Your task to perform on an android device: manage bookmarks in the chrome app Image 0: 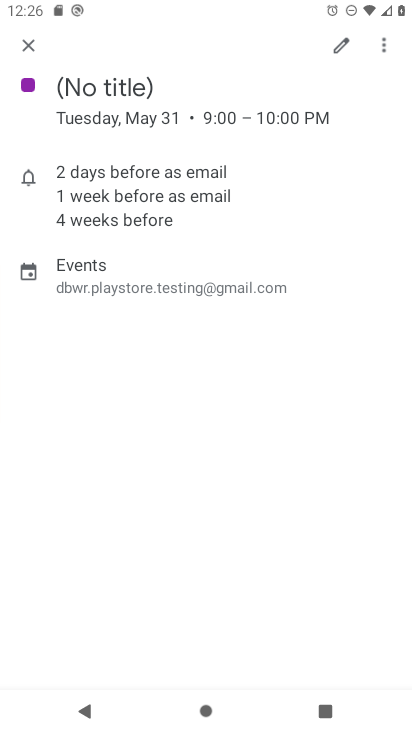
Step 0: press home button
Your task to perform on an android device: manage bookmarks in the chrome app Image 1: 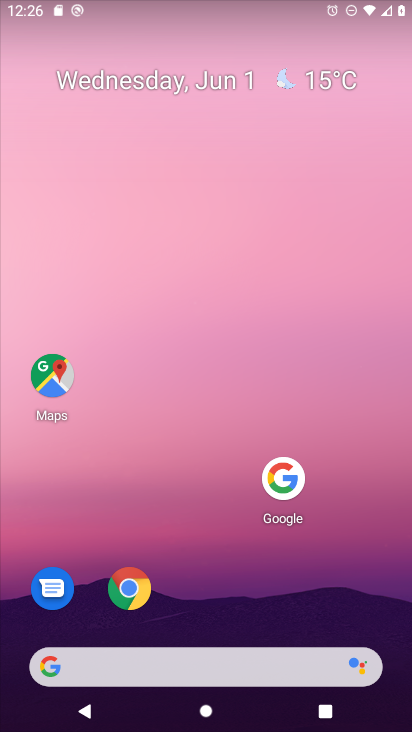
Step 1: click (129, 587)
Your task to perform on an android device: manage bookmarks in the chrome app Image 2: 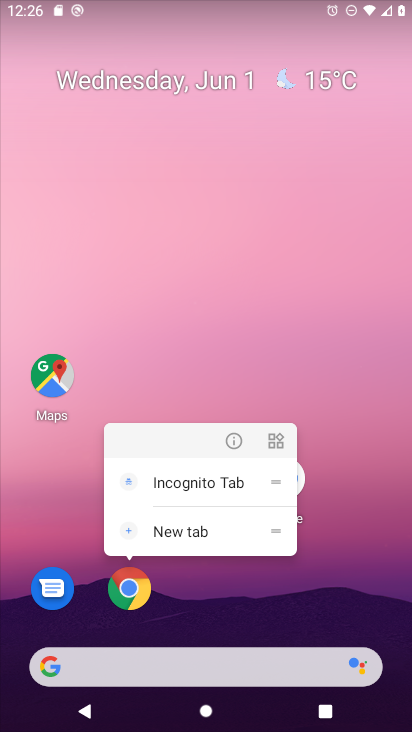
Step 2: click (129, 587)
Your task to perform on an android device: manage bookmarks in the chrome app Image 3: 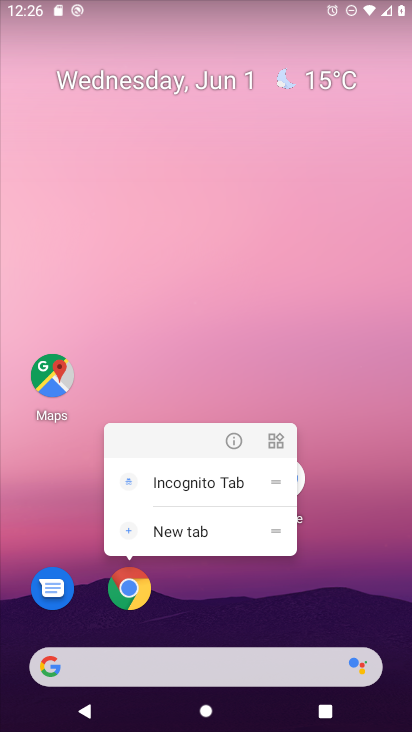
Step 3: click (129, 586)
Your task to perform on an android device: manage bookmarks in the chrome app Image 4: 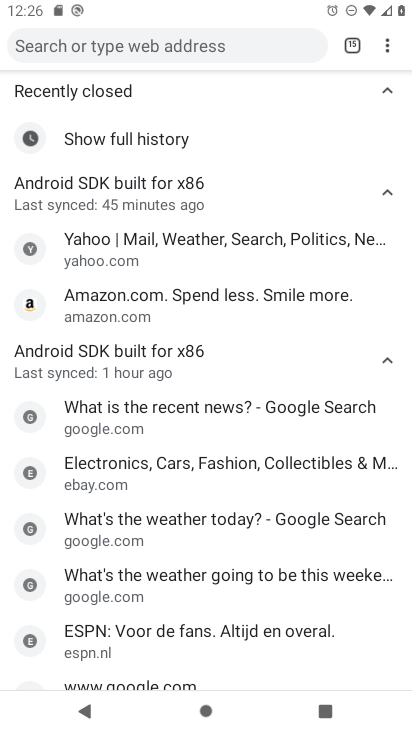
Step 4: drag from (384, 45) to (268, 168)
Your task to perform on an android device: manage bookmarks in the chrome app Image 5: 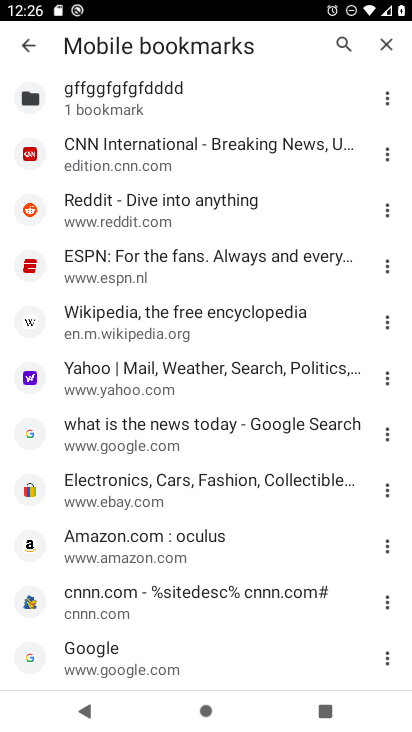
Step 5: click (390, 154)
Your task to perform on an android device: manage bookmarks in the chrome app Image 6: 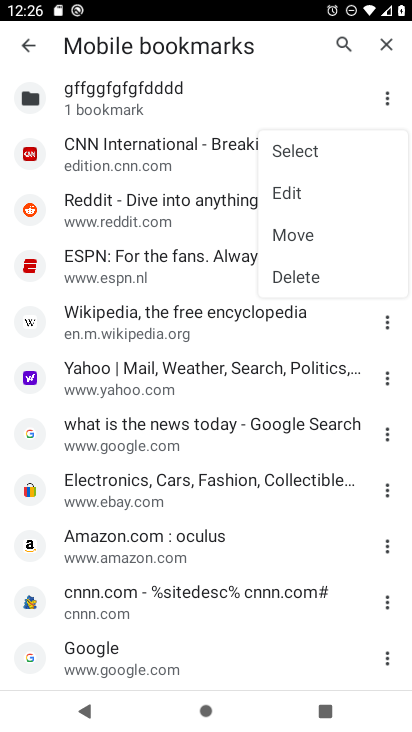
Step 6: click (308, 236)
Your task to perform on an android device: manage bookmarks in the chrome app Image 7: 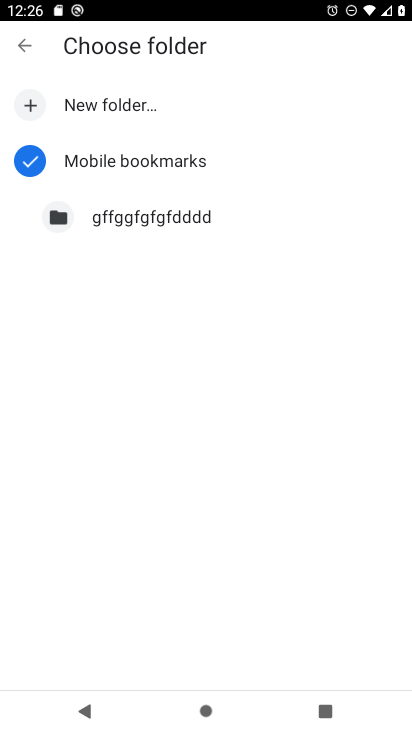
Step 7: click (120, 221)
Your task to perform on an android device: manage bookmarks in the chrome app Image 8: 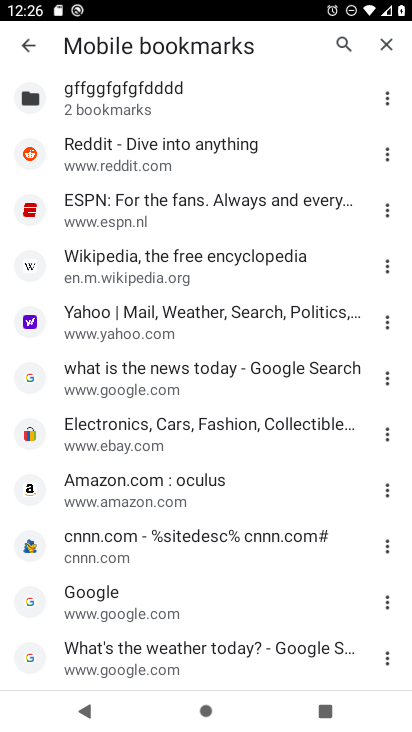
Step 8: task complete